Your task to perform on an android device: turn on translation in the chrome app Image 0: 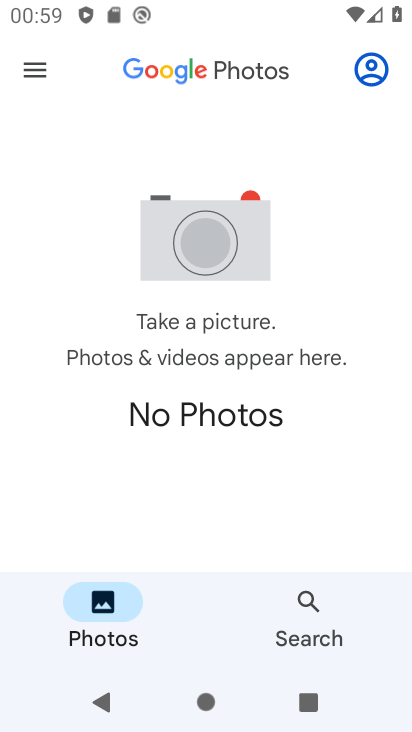
Step 0: press home button
Your task to perform on an android device: turn on translation in the chrome app Image 1: 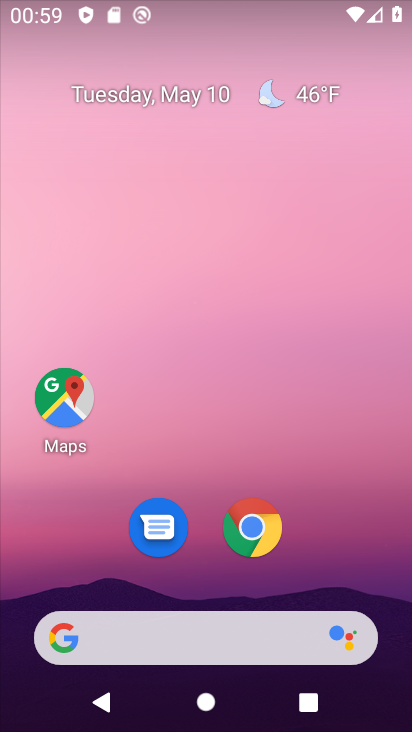
Step 1: click (236, 537)
Your task to perform on an android device: turn on translation in the chrome app Image 2: 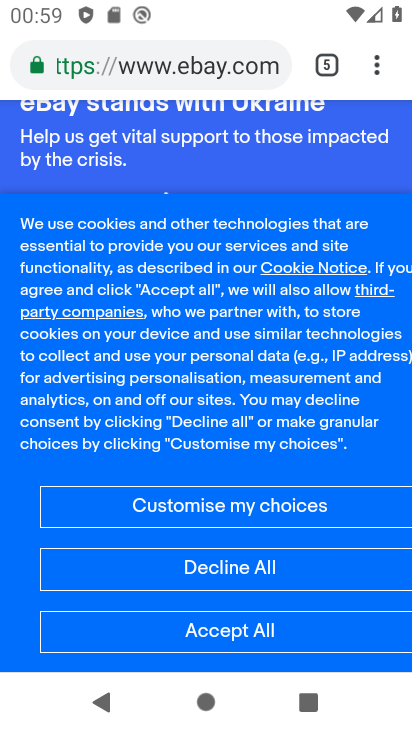
Step 2: drag from (375, 62) to (145, 572)
Your task to perform on an android device: turn on translation in the chrome app Image 3: 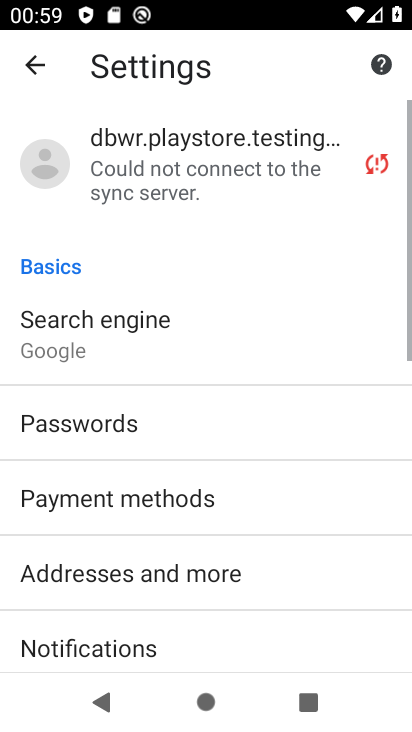
Step 3: drag from (164, 588) to (207, 135)
Your task to perform on an android device: turn on translation in the chrome app Image 4: 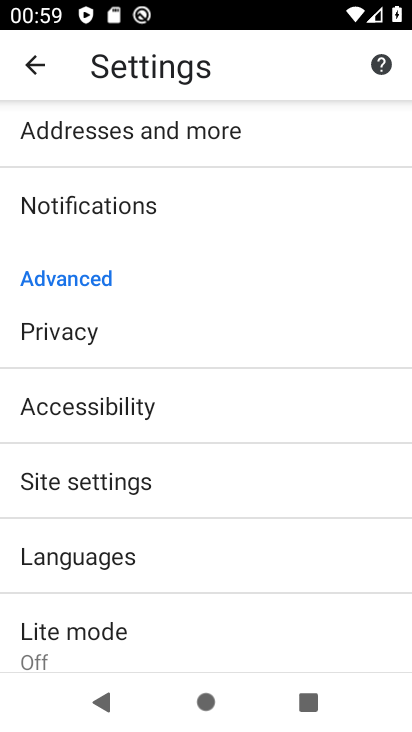
Step 4: click (96, 556)
Your task to perform on an android device: turn on translation in the chrome app Image 5: 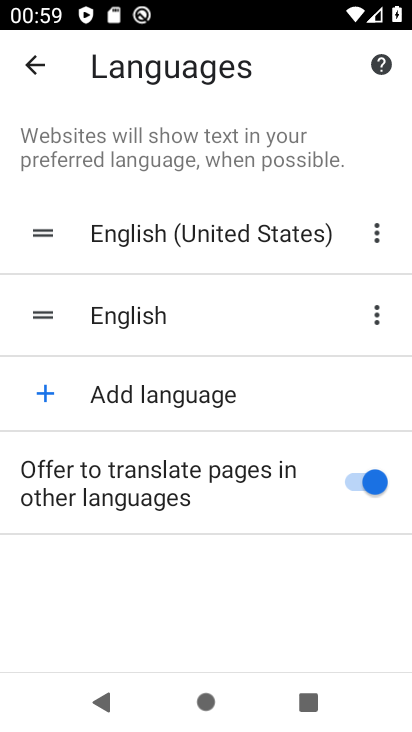
Step 5: task complete